Your task to perform on an android device: Show me my notifications Image 0: 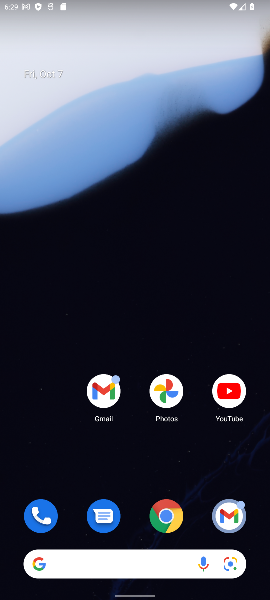
Step 0: drag from (137, 539) to (140, 108)
Your task to perform on an android device: Show me my notifications Image 1: 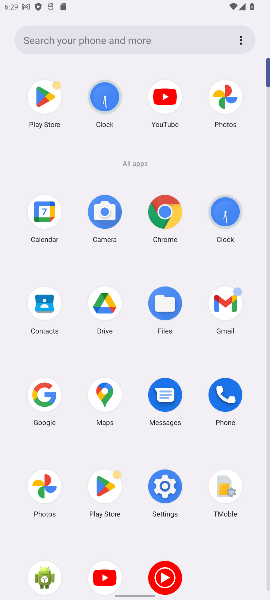
Step 1: click (170, 505)
Your task to perform on an android device: Show me my notifications Image 2: 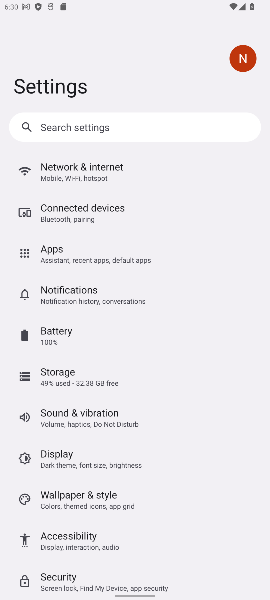
Step 2: task complete